Your task to perform on an android device: Open sound settings Image 0: 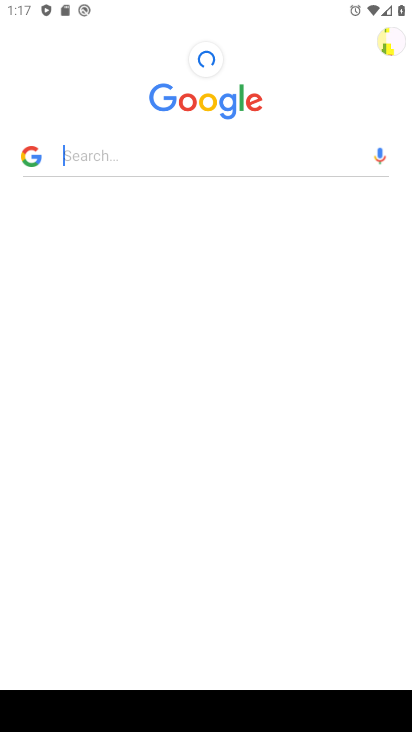
Step 0: press home button
Your task to perform on an android device: Open sound settings Image 1: 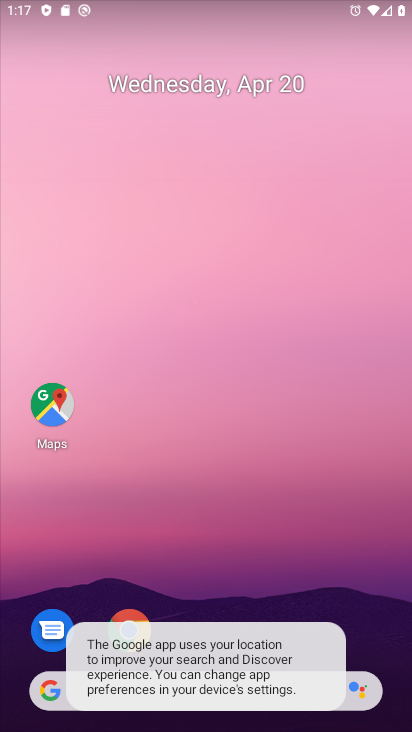
Step 1: drag from (226, 631) to (76, 51)
Your task to perform on an android device: Open sound settings Image 2: 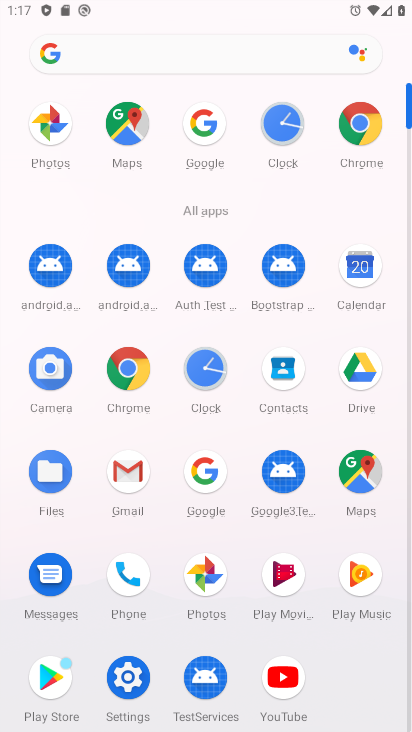
Step 2: click (121, 673)
Your task to perform on an android device: Open sound settings Image 3: 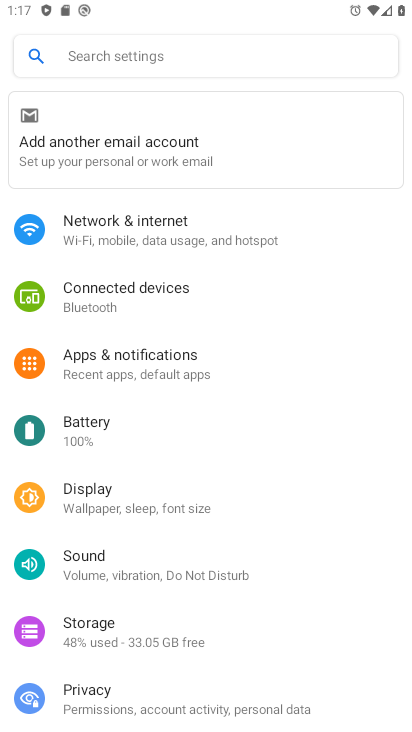
Step 3: click (124, 570)
Your task to perform on an android device: Open sound settings Image 4: 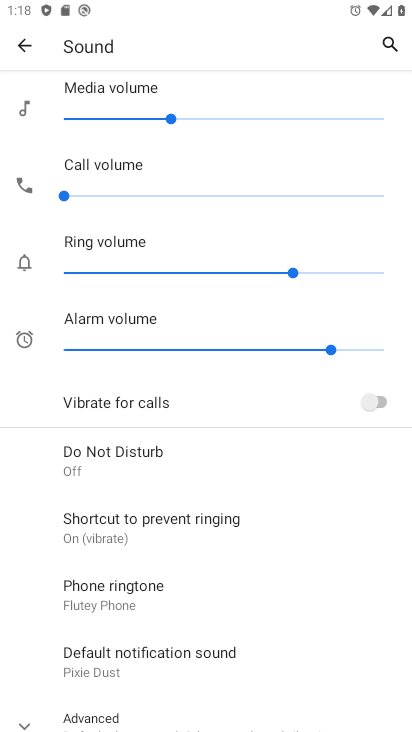
Step 4: drag from (196, 660) to (217, 260)
Your task to perform on an android device: Open sound settings Image 5: 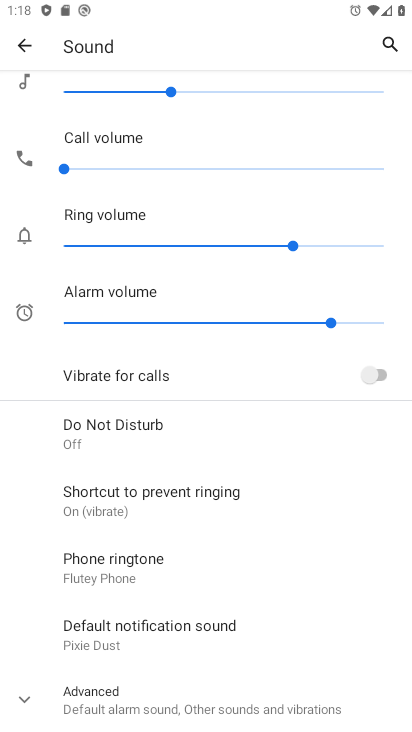
Step 5: click (185, 698)
Your task to perform on an android device: Open sound settings Image 6: 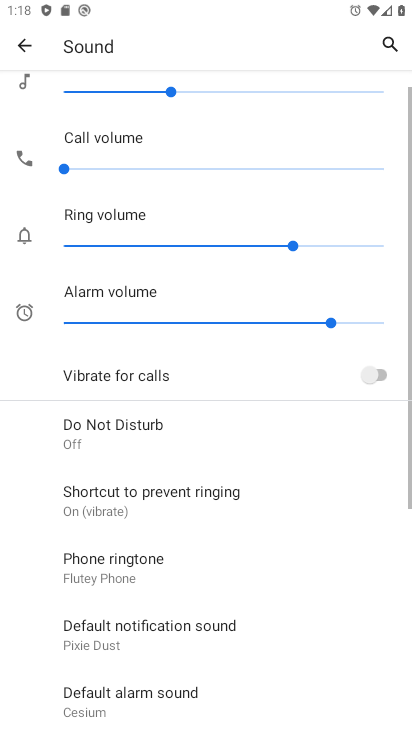
Step 6: task complete